Your task to perform on an android device: Toggle the flashlight Image 0: 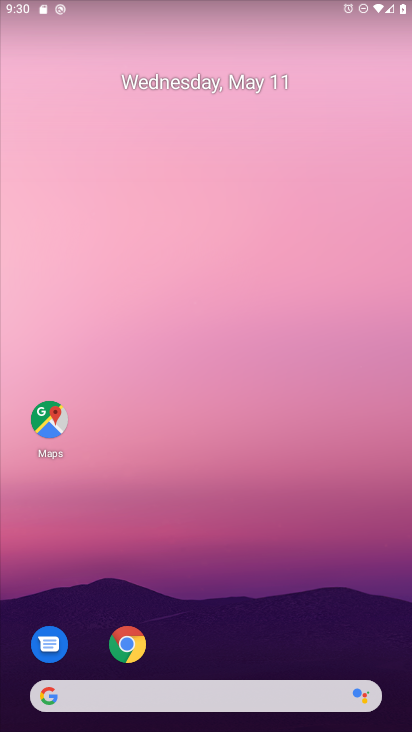
Step 0: drag from (223, 577) to (236, 0)
Your task to perform on an android device: Toggle the flashlight Image 1: 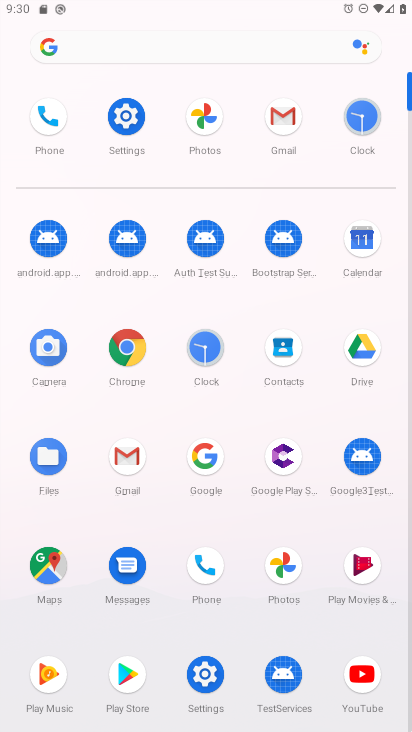
Step 1: click (124, 112)
Your task to perform on an android device: Toggle the flashlight Image 2: 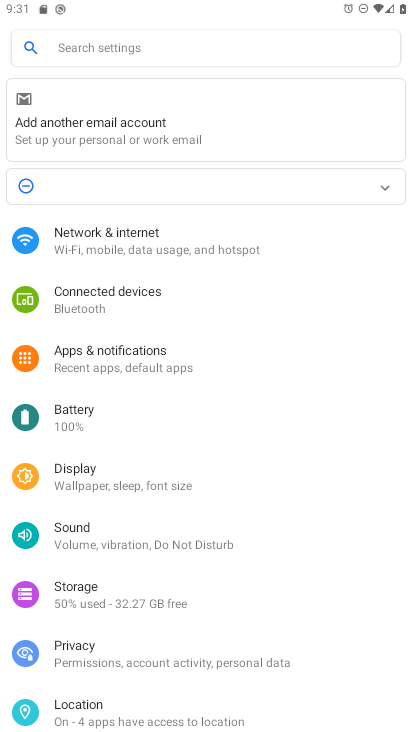
Step 2: click (99, 359)
Your task to perform on an android device: Toggle the flashlight Image 3: 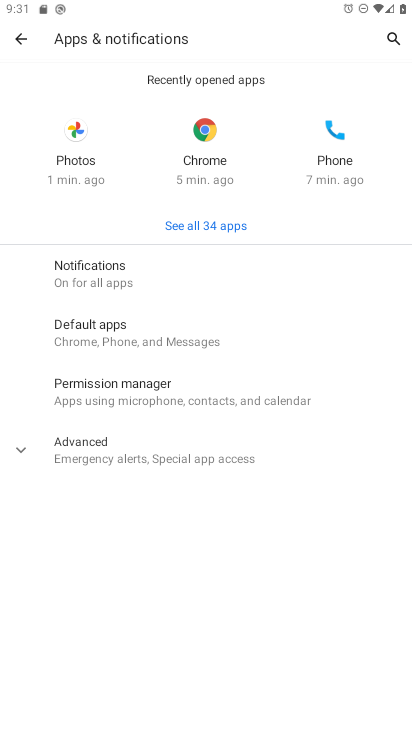
Step 3: task complete